Your task to perform on an android device: Open internet settings Image 0: 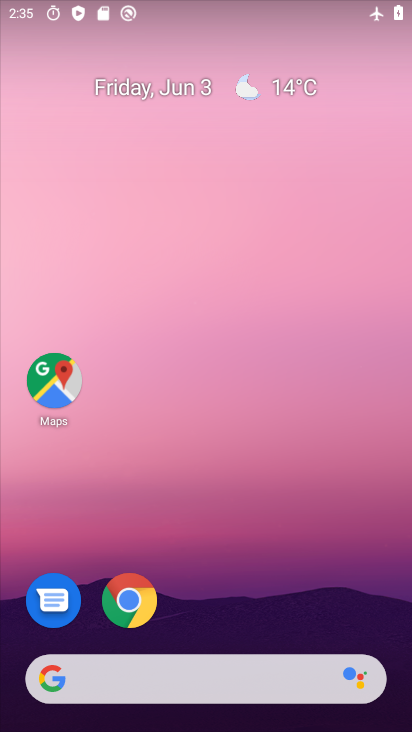
Step 0: drag from (247, 231) to (214, 0)
Your task to perform on an android device: Open internet settings Image 1: 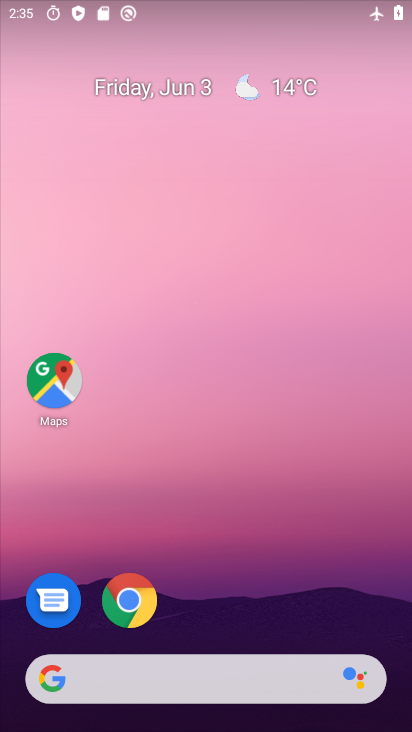
Step 1: drag from (303, 557) to (228, 47)
Your task to perform on an android device: Open internet settings Image 2: 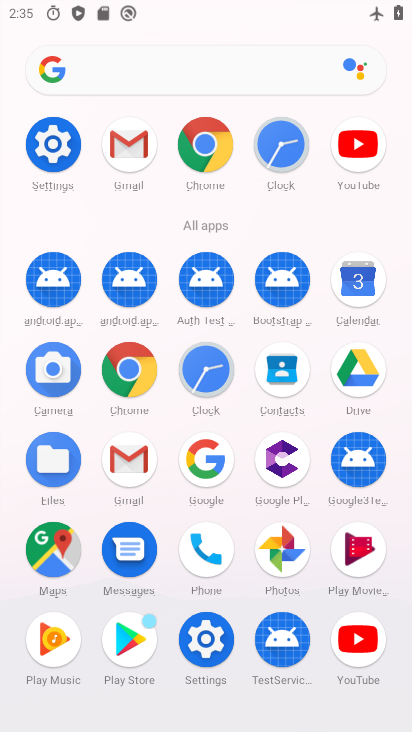
Step 2: drag from (14, 488) to (0, 203)
Your task to perform on an android device: Open internet settings Image 3: 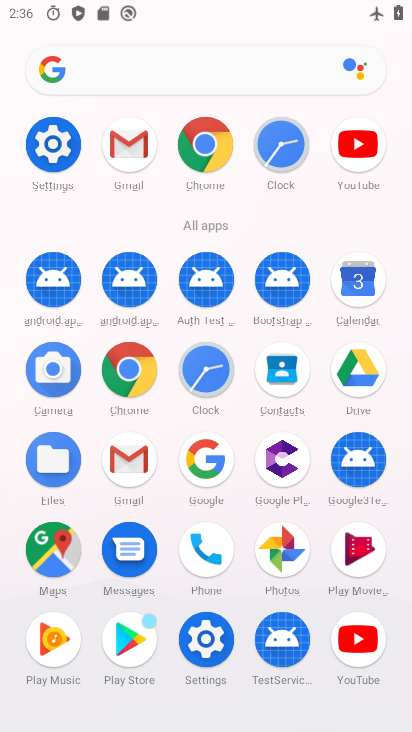
Step 3: click (52, 140)
Your task to perform on an android device: Open internet settings Image 4: 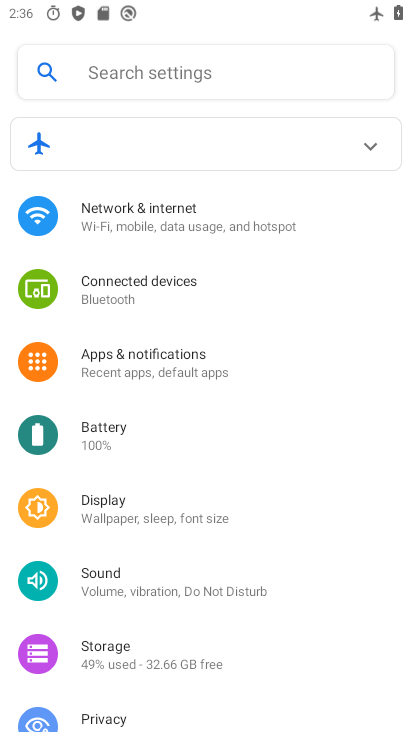
Step 4: click (211, 220)
Your task to perform on an android device: Open internet settings Image 5: 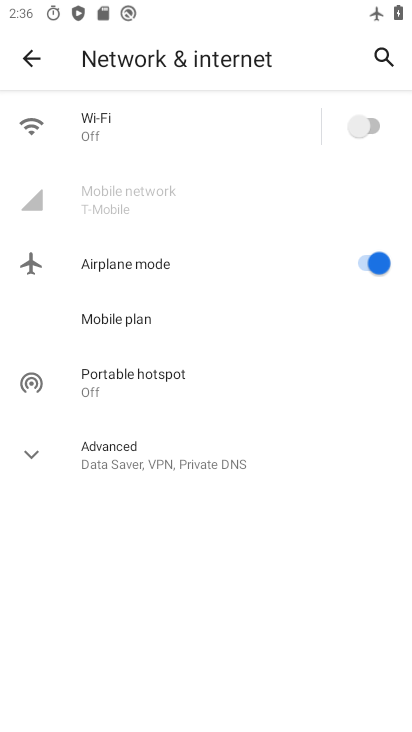
Step 5: click (30, 442)
Your task to perform on an android device: Open internet settings Image 6: 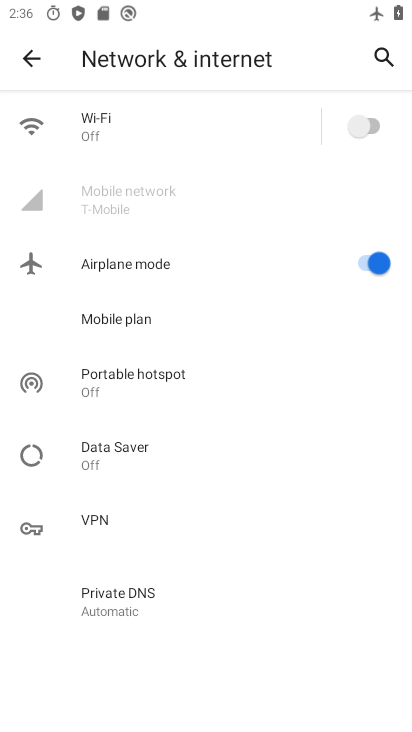
Step 6: task complete